Your task to perform on an android device: Go to Yahoo.com Image 0: 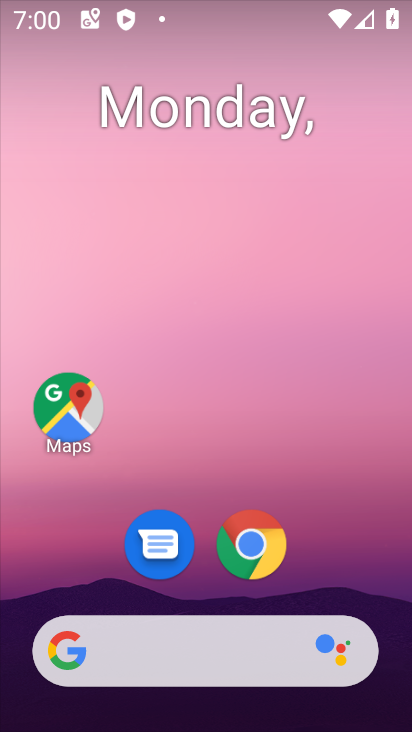
Step 0: click (263, 546)
Your task to perform on an android device: Go to Yahoo.com Image 1: 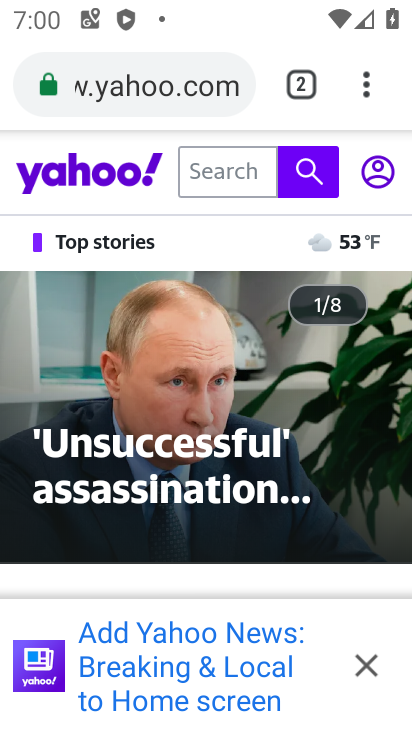
Step 1: task complete